Your task to perform on an android device: turn off javascript in the chrome app Image 0: 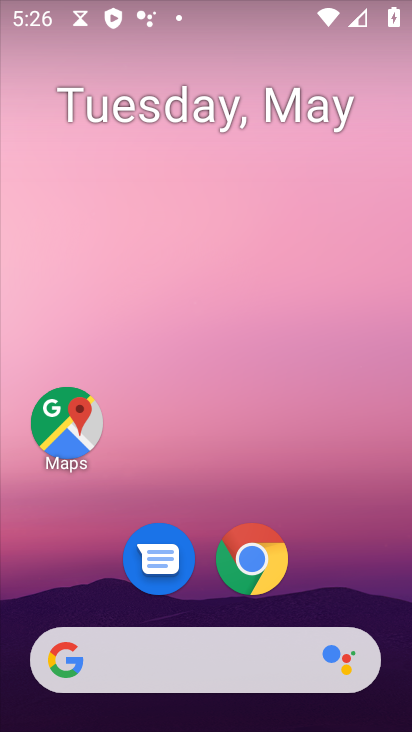
Step 0: click (406, 543)
Your task to perform on an android device: turn off javascript in the chrome app Image 1: 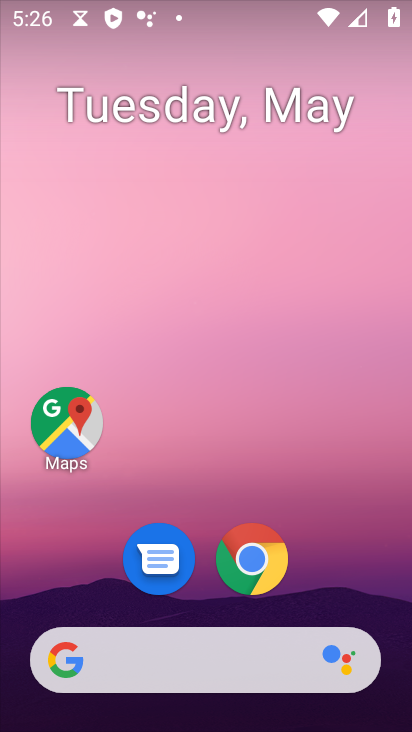
Step 1: drag from (367, 627) to (312, 161)
Your task to perform on an android device: turn off javascript in the chrome app Image 2: 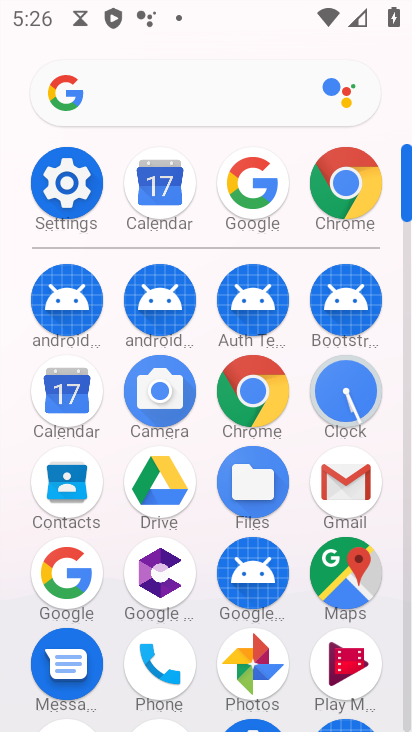
Step 2: click (353, 173)
Your task to perform on an android device: turn off javascript in the chrome app Image 3: 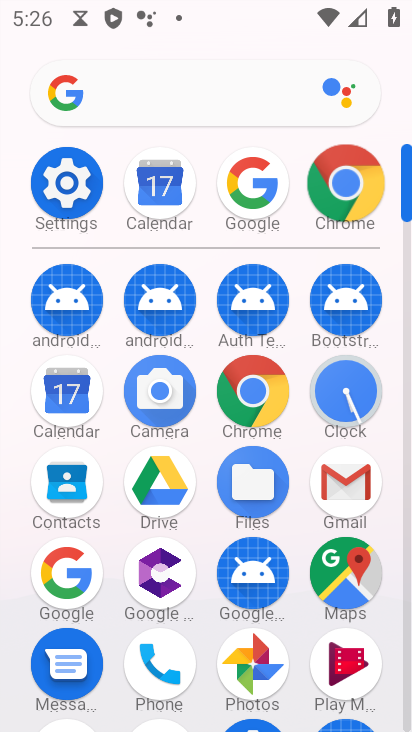
Step 3: click (353, 173)
Your task to perform on an android device: turn off javascript in the chrome app Image 4: 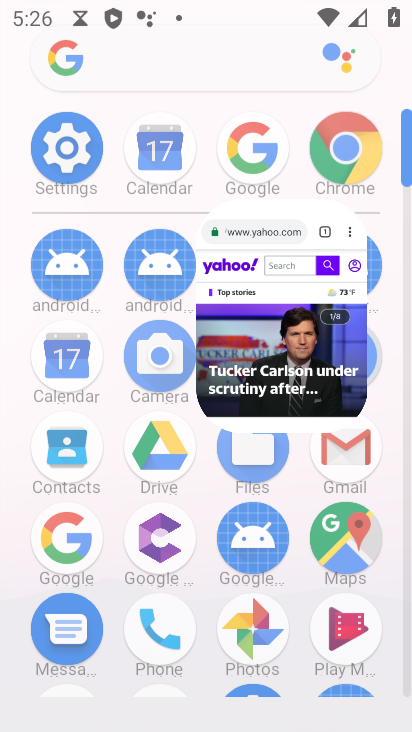
Step 4: click (353, 173)
Your task to perform on an android device: turn off javascript in the chrome app Image 5: 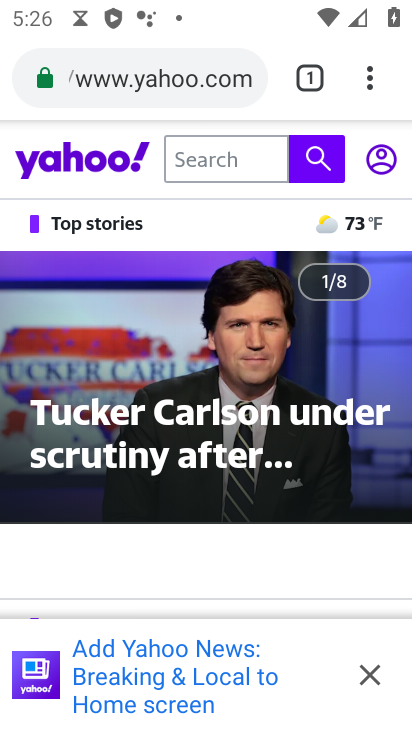
Step 5: click (362, 79)
Your task to perform on an android device: turn off javascript in the chrome app Image 6: 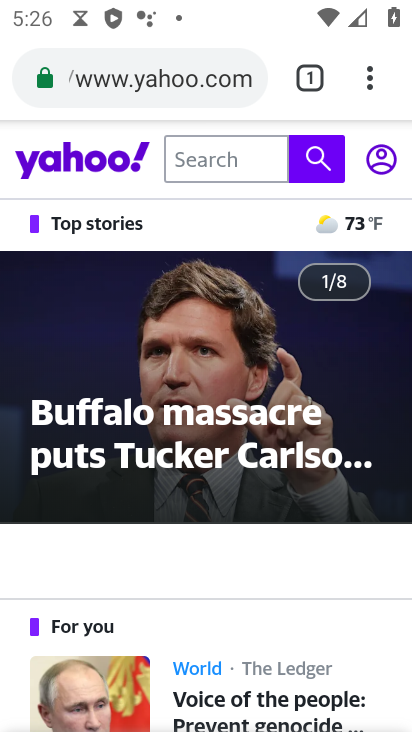
Step 6: click (362, 79)
Your task to perform on an android device: turn off javascript in the chrome app Image 7: 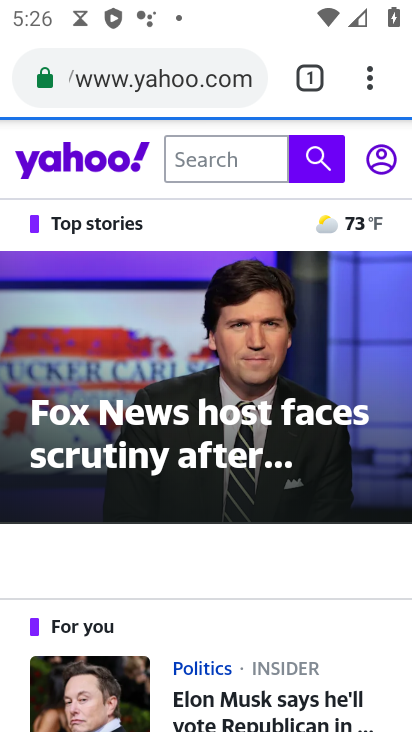
Step 7: click (367, 81)
Your task to perform on an android device: turn off javascript in the chrome app Image 8: 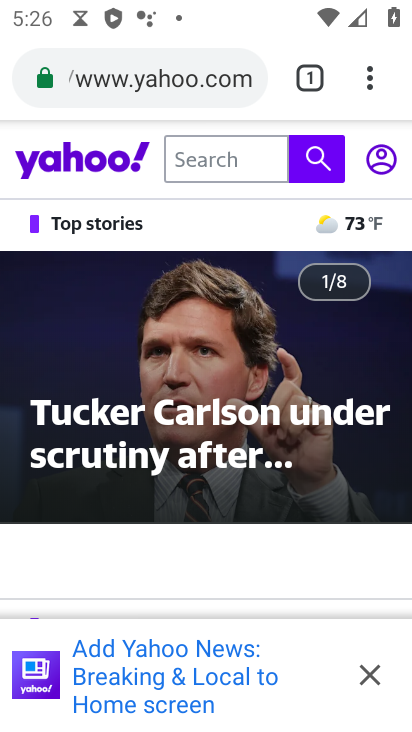
Step 8: click (362, 81)
Your task to perform on an android device: turn off javascript in the chrome app Image 9: 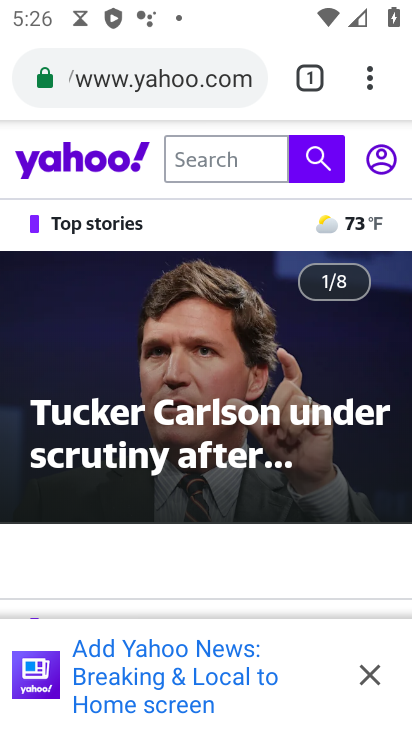
Step 9: click (364, 79)
Your task to perform on an android device: turn off javascript in the chrome app Image 10: 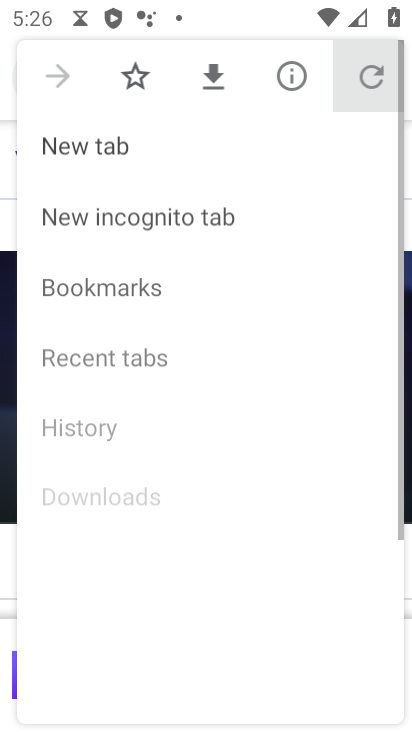
Step 10: click (365, 79)
Your task to perform on an android device: turn off javascript in the chrome app Image 11: 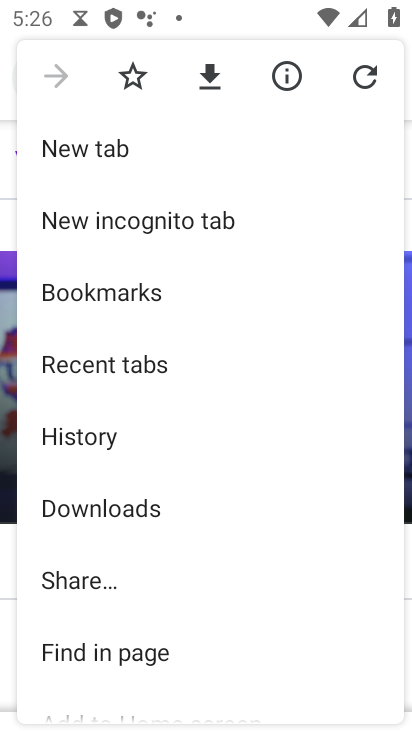
Step 11: drag from (92, 630) to (76, 231)
Your task to perform on an android device: turn off javascript in the chrome app Image 12: 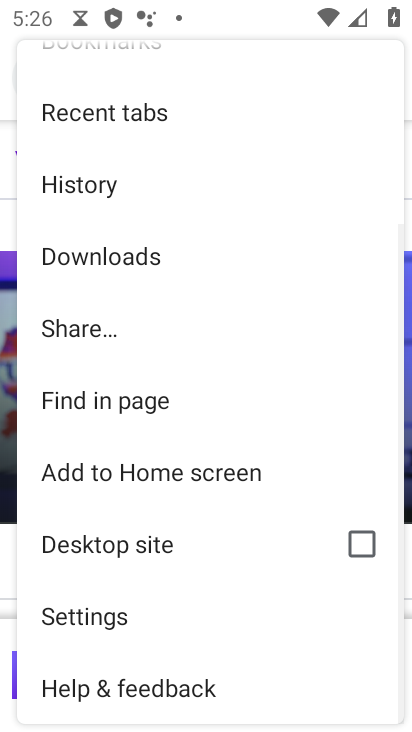
Step 12: click (87, 618)
Your task to perform on an android device: turn off javascript in the chrome app Image 13: 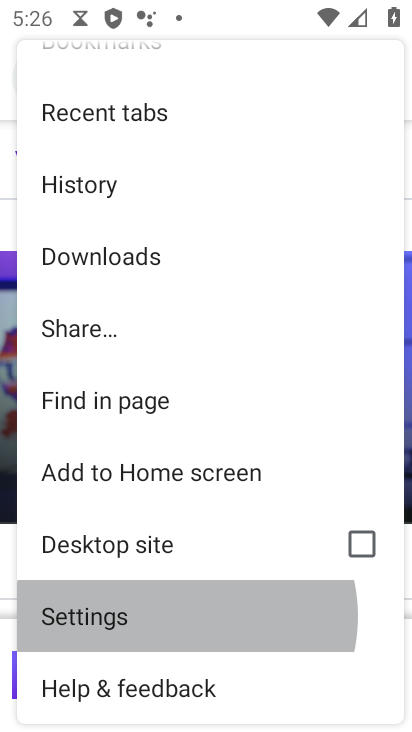
Step 13: click (88, 618)
Your task to perform on an android device: turn off javascript in the chrome app Image 14: 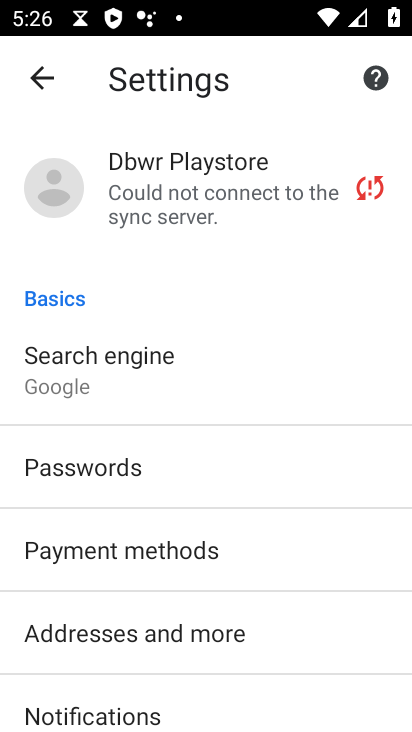
Step 14: drag from (172, 495) to (131, 37)
Your task to perform on an android device: turn off javascript in the chrome app Image 15: 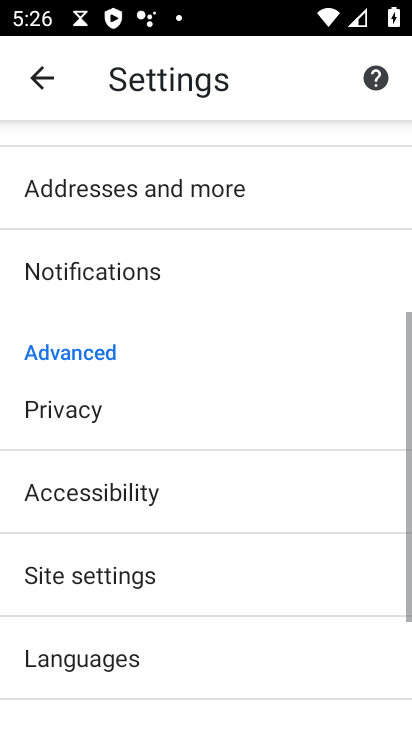
Step 15: drag from (204, 492) to (253, 105)
Your task to perform on an android device: turn off javascript in the chrome app Image 16: 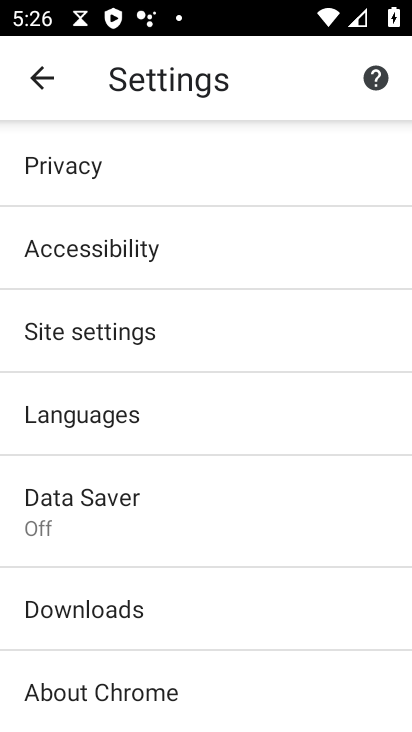
Step 16: click (72, 322)
Your task to perform on an android device: turn off javascript in the chrome app Image 17: 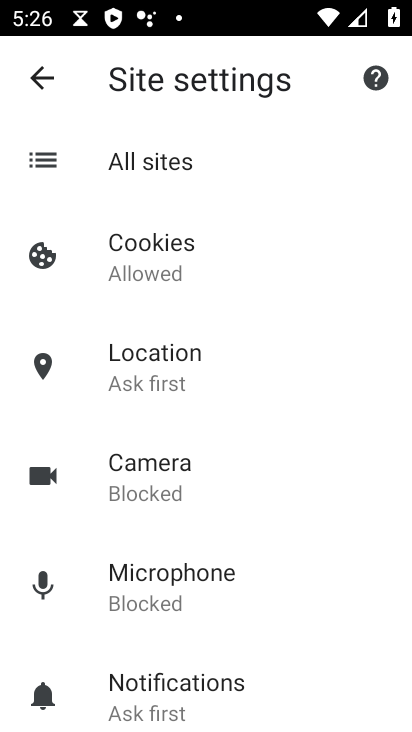
Step 17: drag from (175, 591) to (168, 136)
Your task to perform on an android device: turn off javascript in the chrome app Image 18: 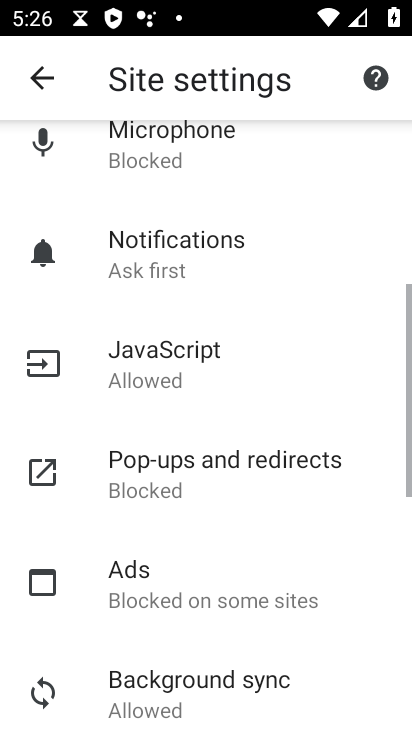
Step 18: drag from (179, 534) to (151, 128)
Your task to perform on an android device: turn off javascript in the chrome app Image 19: 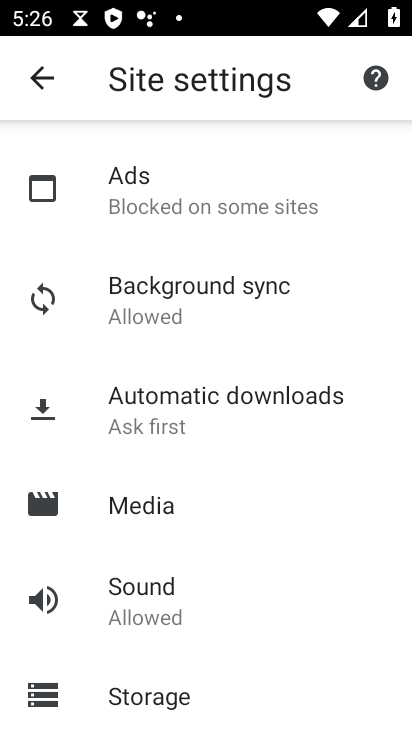
Step 19: drag from (138, 252) to (217, 580)
Your task to perform on an android device: turn off javascript in the chrome app Image 20: 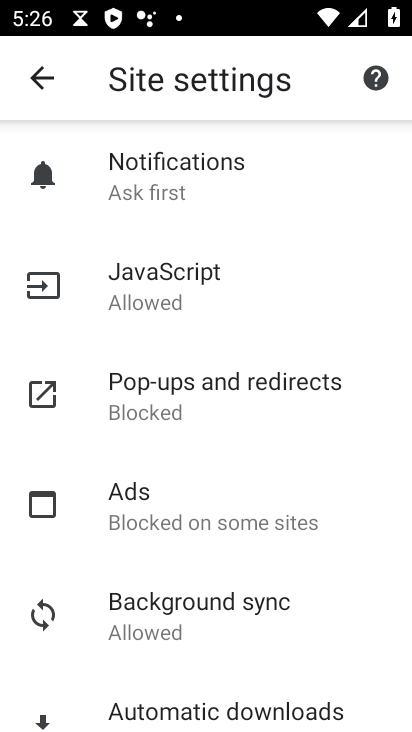
Step 20: click (144, 288)
Your task to perform on an android device: turn off javascript in the chrome app Image 21: 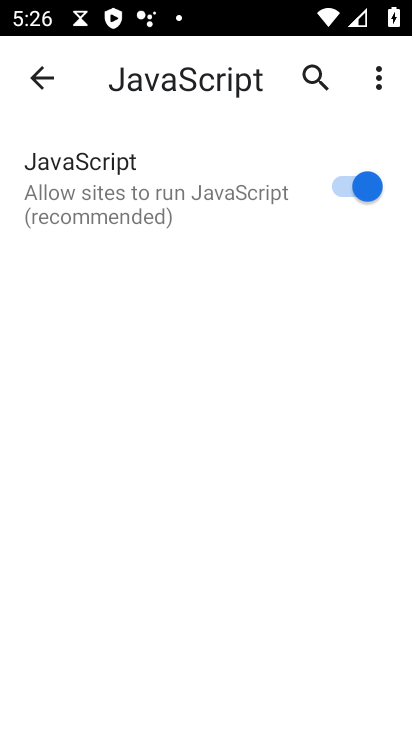
Step 21: click (353, 180)
Your task to perform on an android device: turn off javascript in the chrome app Image 22: 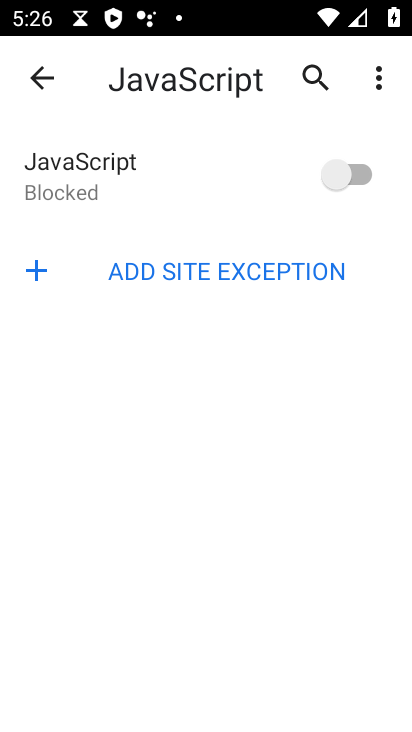
Step 22: task complete